Your task to perform on an android device: open wifi settings Image 0: 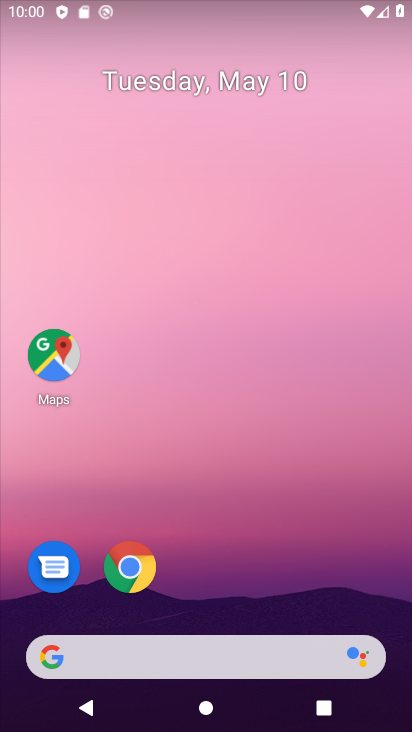
Step 0: drag from (190, 509) to (247, 17)
Your task to perform on an android device: open wifi settings Image 1: 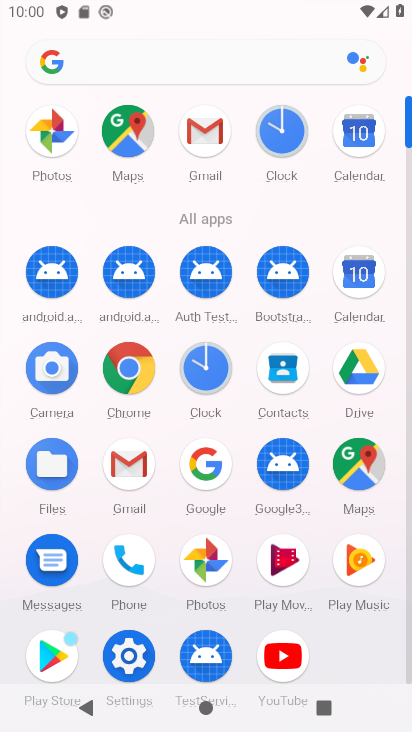
Step 1: click (121, 662)
Your task to perform on an android device: open wifi settings Image 2: 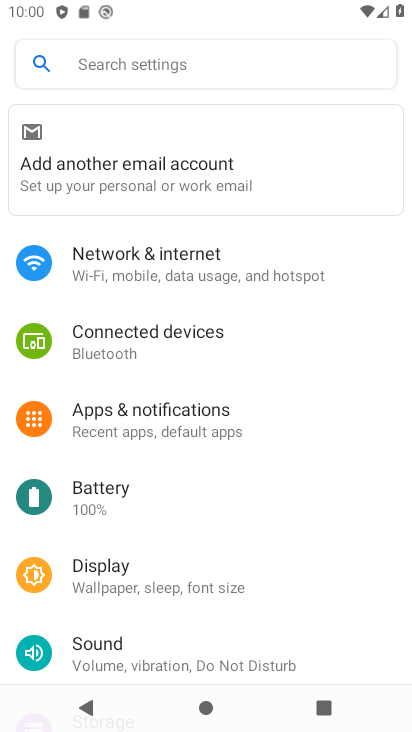
Step 2: click (179, 253)
Your task to perform on an android device: open wifi settings Image 3: 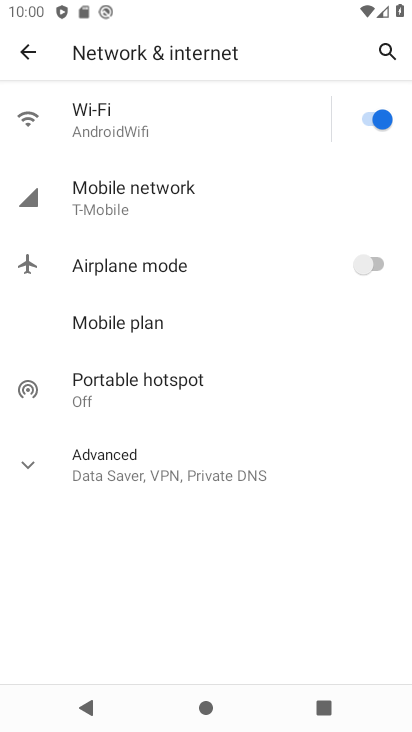
Step 3: click (174, 121)
Your task to perform on an android device: open wifi settings Image 4: 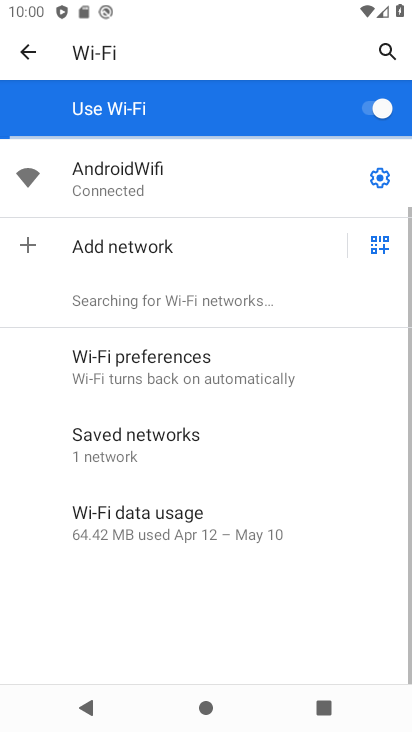
Step 4: task complete